Your task to perform on an android device: turn off wifi Image 0: 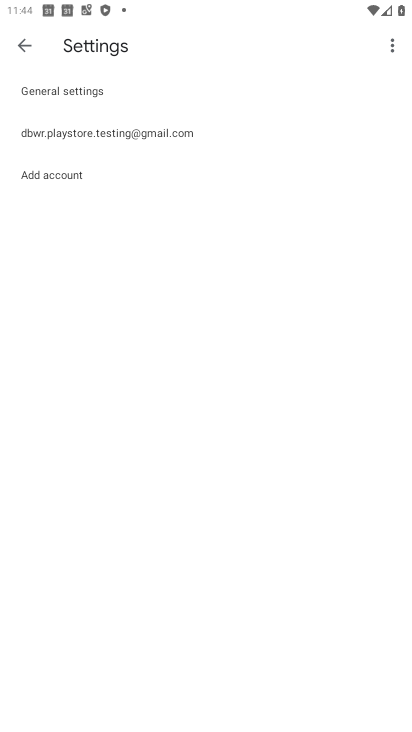
Step 0: press back button
Your task to perform on an android device: turn off wifi Image 1: 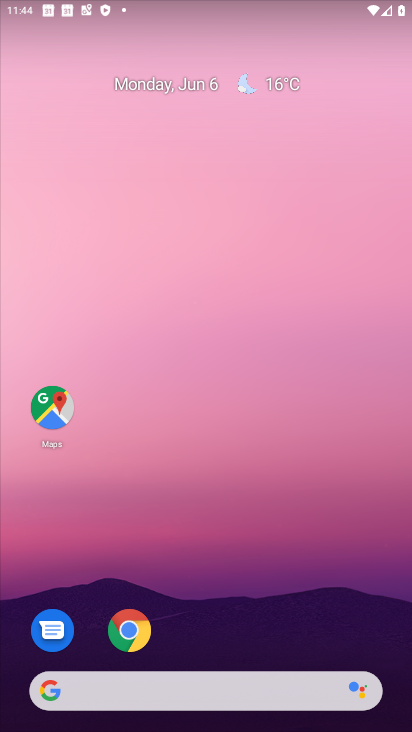
Step 1: drag from (65, 12) to (129, 504)
Your task to perform on an android device: turn off wifi Image 2: 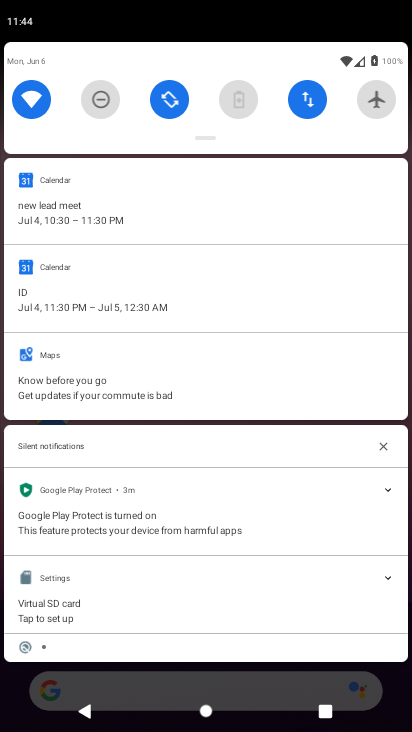
Step 2: click (38, 113)
Your task to perform on an android device: turn off wifi Image 3: 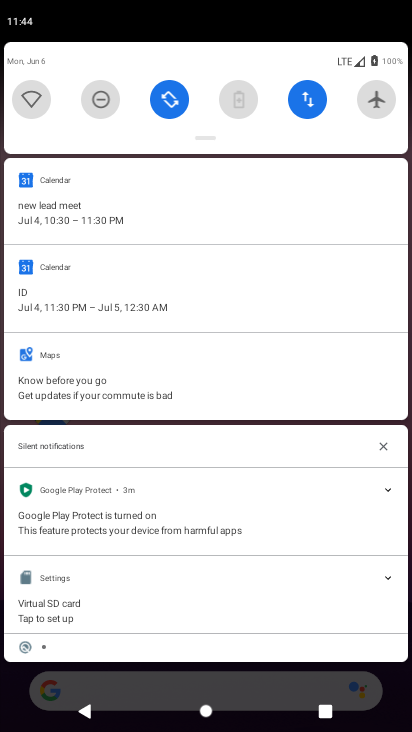
Step 3: task complete